Your task to perform on an android device: change notifications settings Image 0: 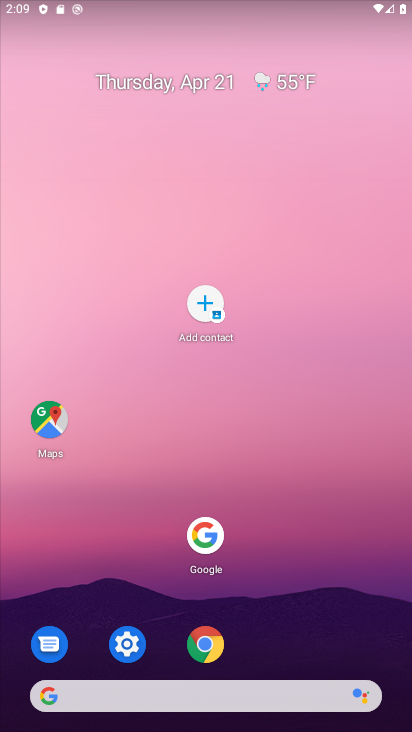
Step 0: drag from (277, 701) to (21, 3)
Your task to perform on an android device: change notifications settings Image 1: 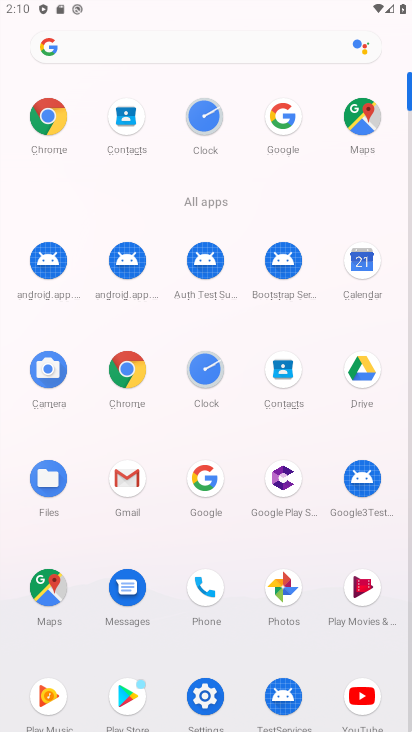
Step 1: drag from (194, 517) to (187, 234)
Your task to perform on an android device: change notifications settings Image 2: 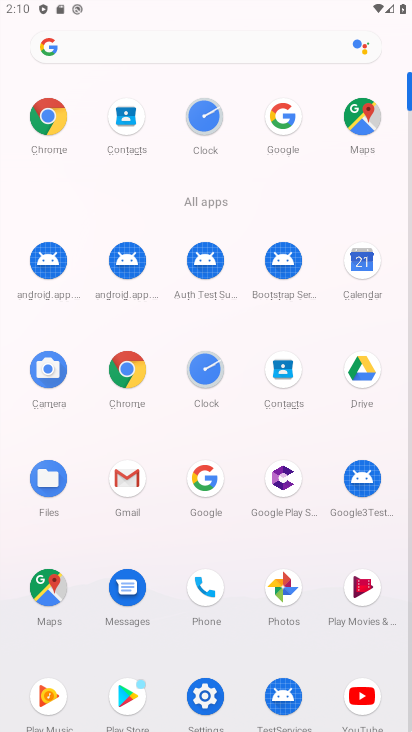
Step 2: drag from (233, 596) to (192, 132)
Your task to perform on an android device: change notifications settings Image 3: 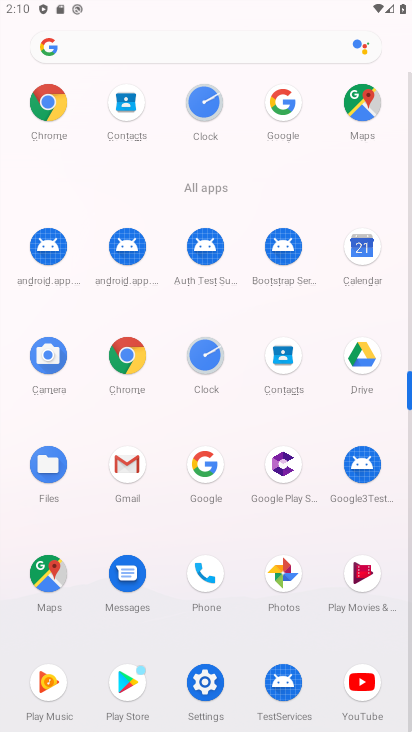
Step 3: drag from (225, 428) to (154, 105)
Your task to perform on an android device: change notifications settings Image 4: 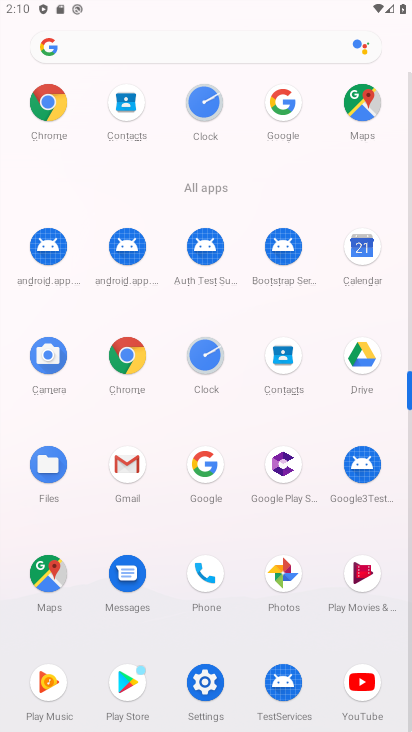
Step 4: click (201, 687)
Your task to perform on an android device: change notifications settings Image 5: 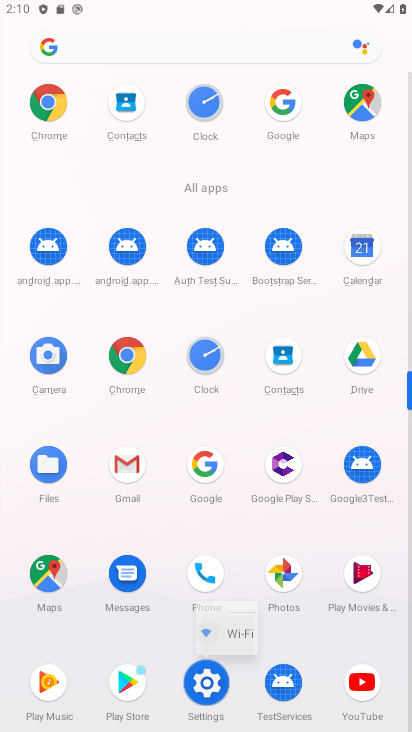
Step 5: click (201, 687)
Your task to perform on an android device: change notifications settings Image 6: 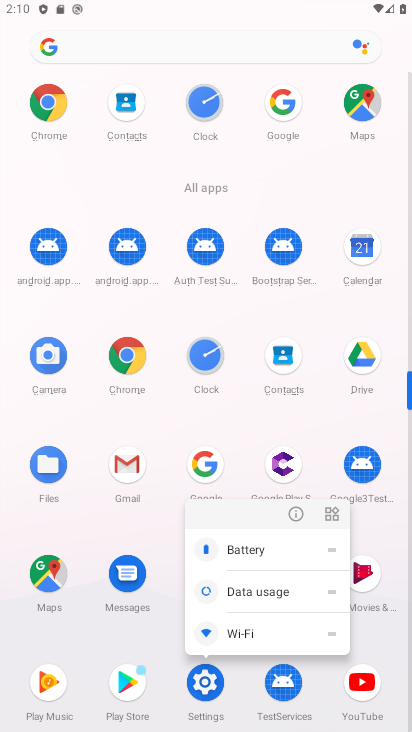
Step 6: click (207, 694)
Your task to perform on an android device: change notifications settings Image 7: 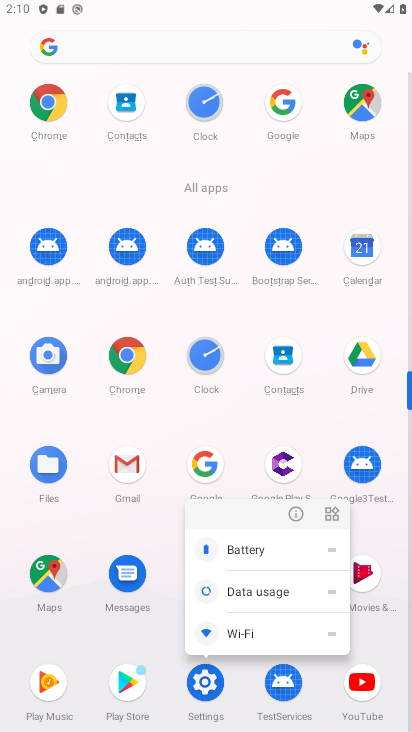
Step 7: click (200, 677)
Your task to perform on an android device: change notifications settings Image 8: 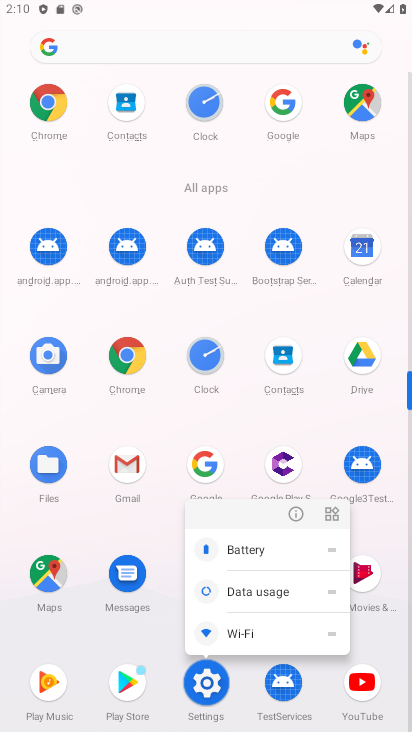
Step 8: click (199, 676)
Your task to perform on an android device: change notifications settings Image 9: 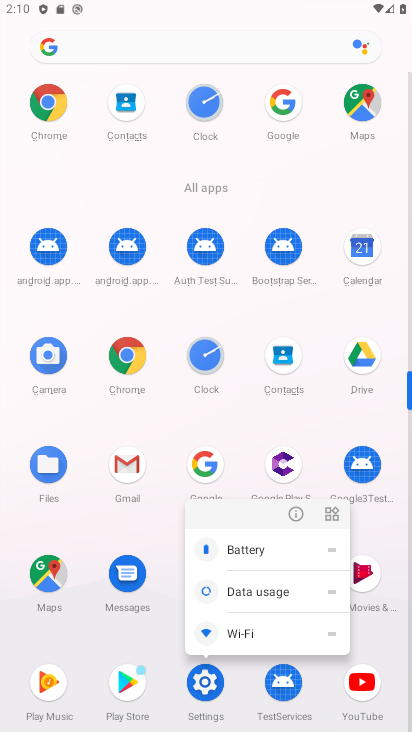
Step 9: drag from (199, 676) to (205, 455)
Your task to perform on an android device: change notifications settings Image 10: 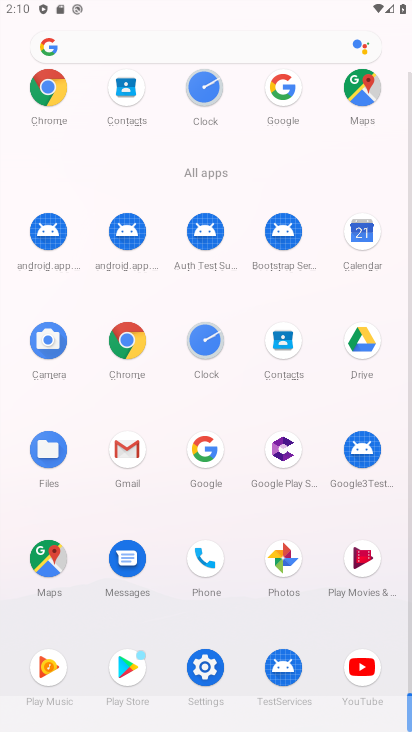
Step 10: click (210, 655)
Your task to perform on an android device: change notifications settings Image 11: 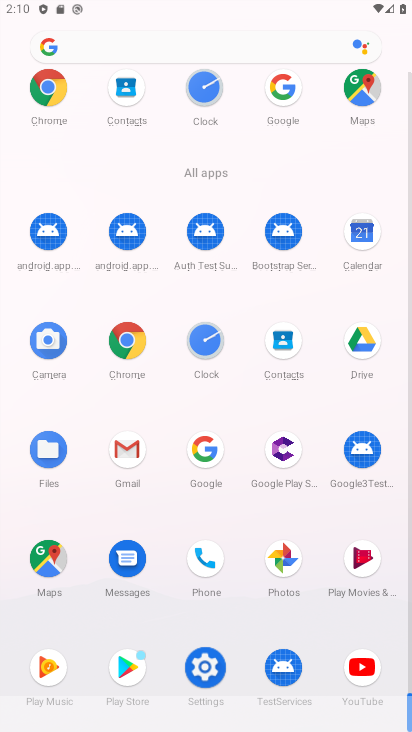
Step 11: click (210, 655)
Your task to perform on an android device: change notifications settings Image 12: 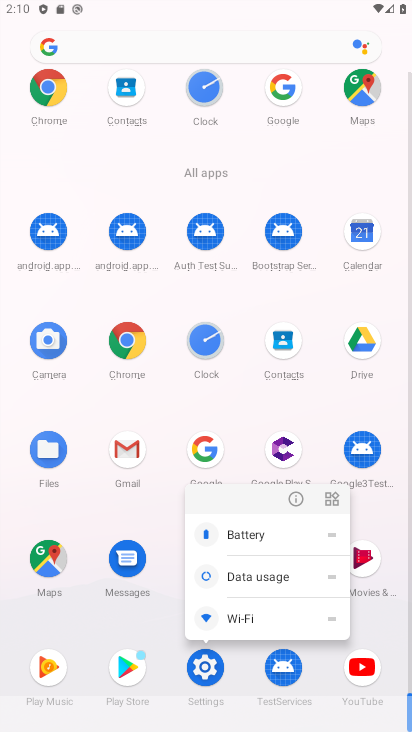
Step 12: click (194, 675)
Your task to perform on an android device: change notifications settings Image 13: 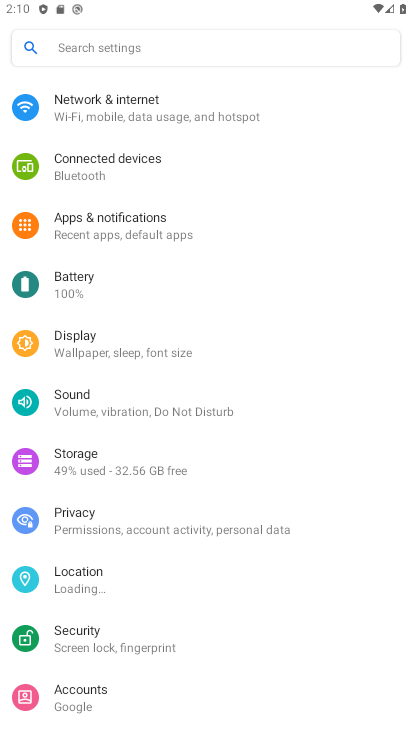
Step 13: click (210, 661)
Your task to perform on an android device: change notifications settings Image 14: 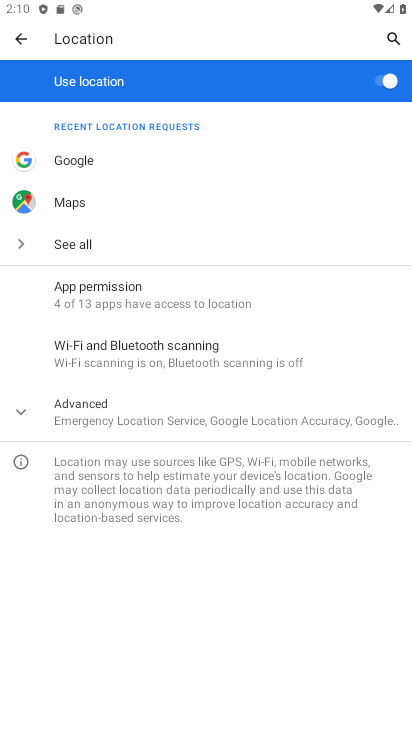
Step 14: click (13, 38)
Your task to perform on an android device: change notifications settings Image 15: 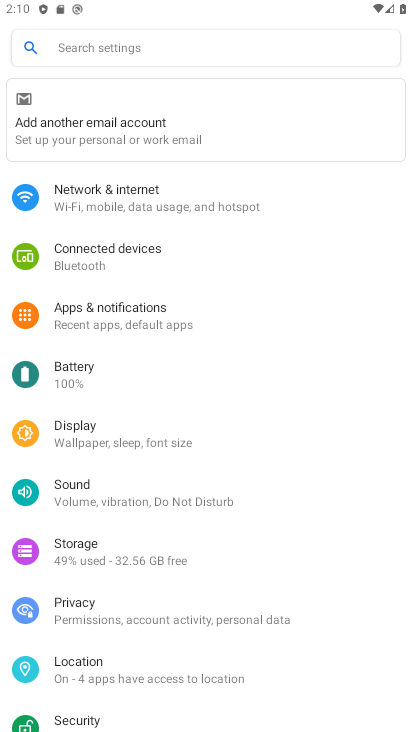
Step 15: click (119, 321)
Your task to perform on an android device: change notifications settings Image 16: 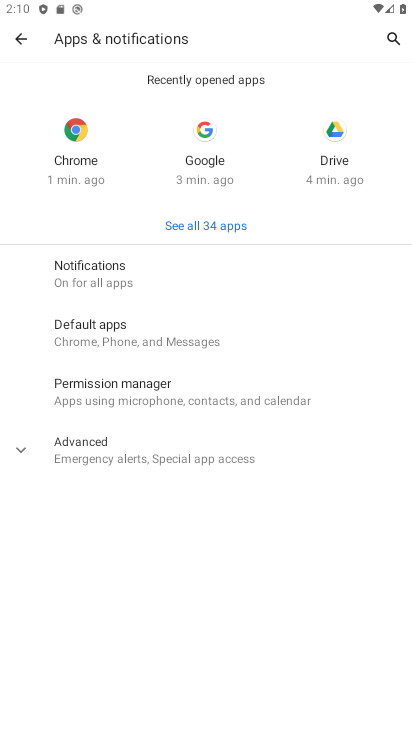
Step 16: click (98, 275)
Your task to perform on an android device: change notifications settings Image 17: 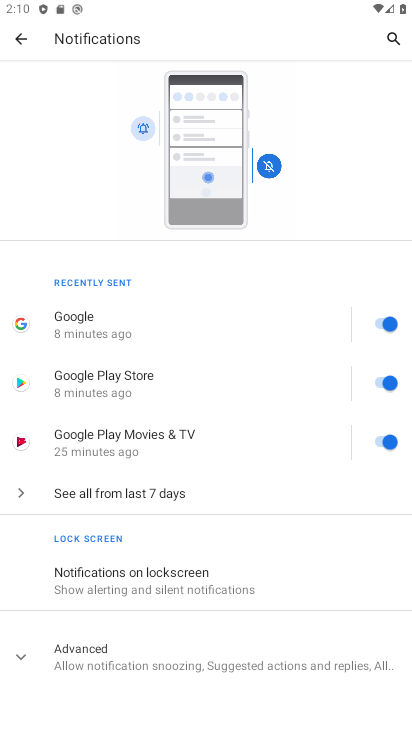
Step 17: drag from (195, 578) to (35, 107)
Your task to perform on an android device: change notifications settings Image 18: 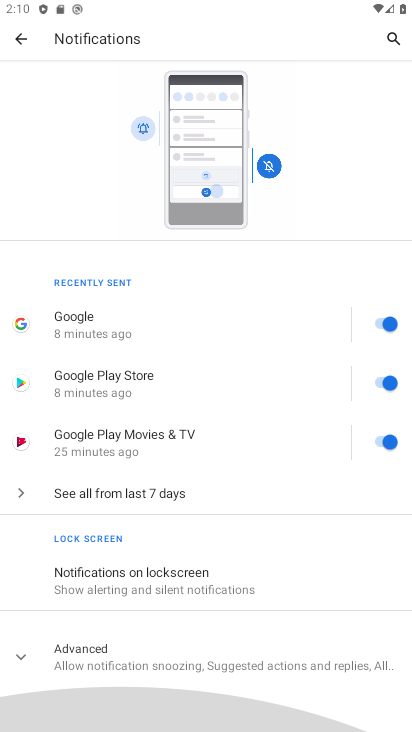
Step 18: drag from (165, 527) to (36, 224)
Your task to perform on an android device: change notifications settings Image 19: 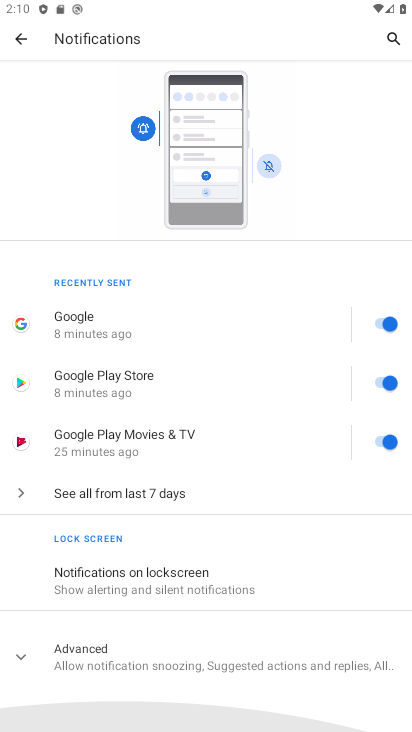
Step 19: drag from (177, 499) to (116, 278)
Your task to perform on an android device: change notifications settings Image 20: 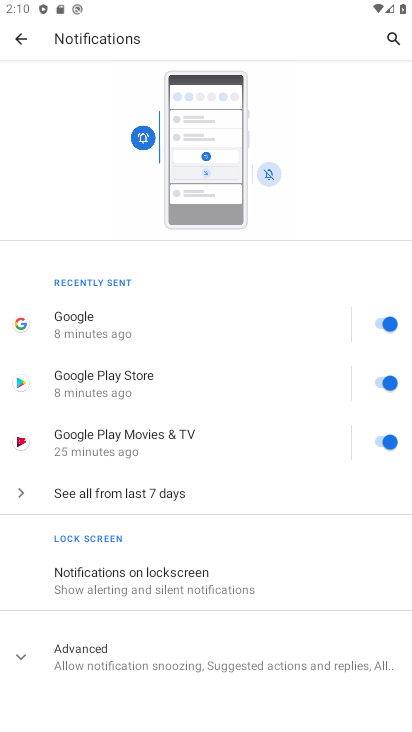
Step 20: drag from (148, 526) to (108, 378)
Your task to perform on an android device: change notifications settings Image 21: 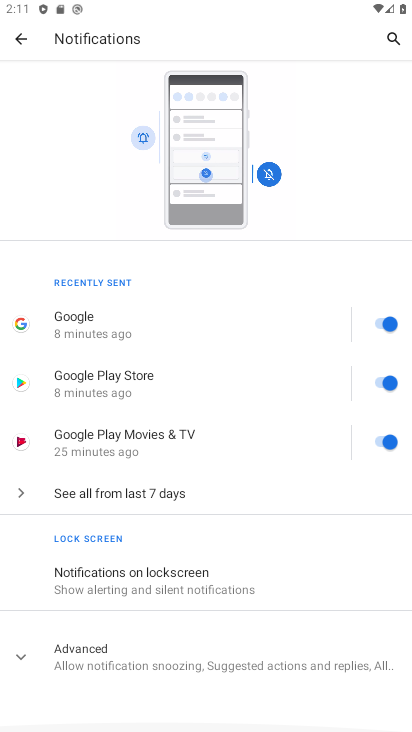
Step 21: click (89, 662)
Your task to perform on an android device: change notifications settings Image 22: 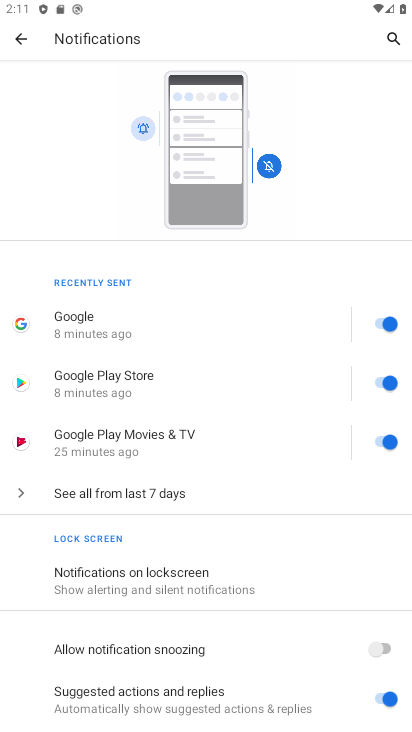
Step 22: drag from (267, 591) to (86, 226)
Your task to perform on an android device: change notifications settings Image 23: 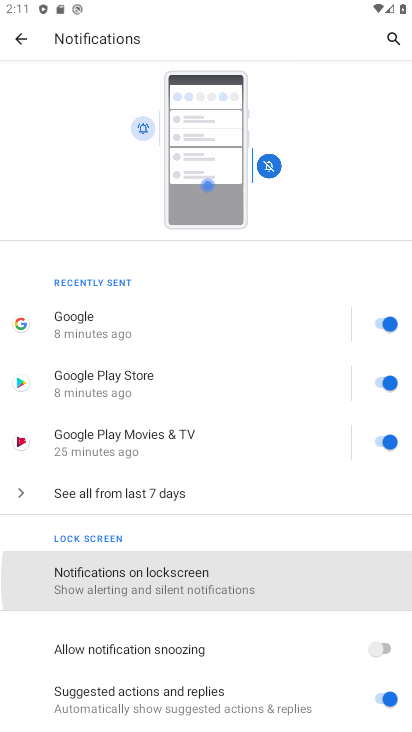
Step 23: drag from (196, 582) to (213, 281)
Your task to perform on an android device: change notifications settings Image 24: 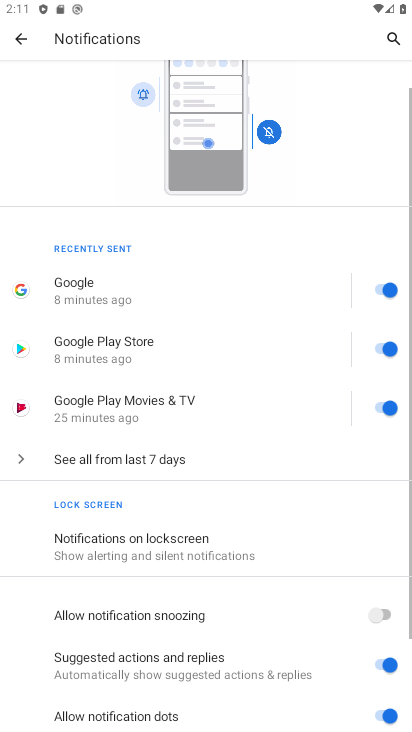
Step 24: drag from (228, 641) to (161, 282)
Your task to perform on an android device: change notifications settings Image 25: 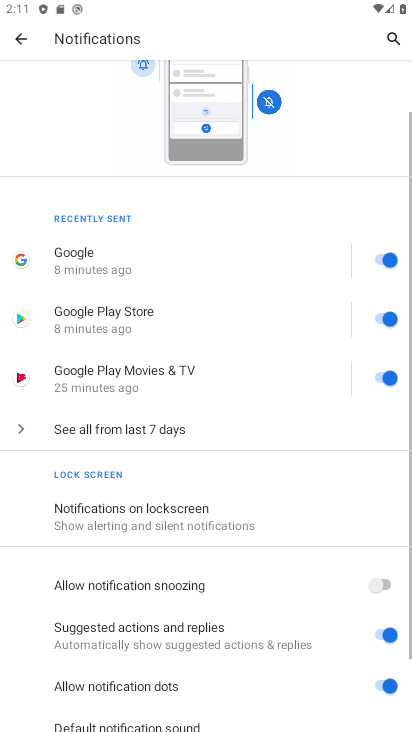
Step 25: drag from (245, 657) to (194, 201)
Your task to perform on an android device: change notifications settings Image 26: 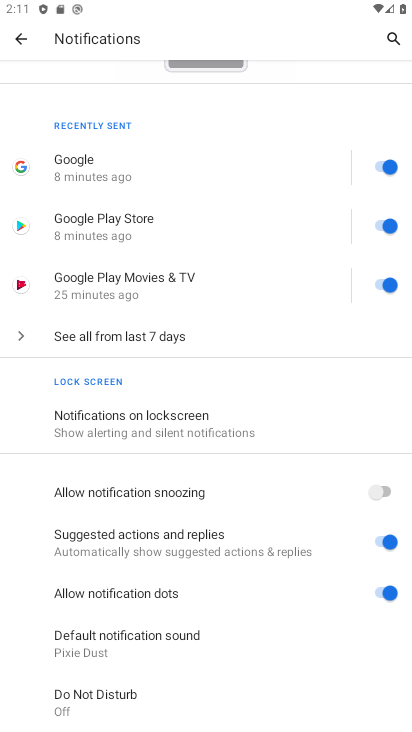
Step 26: click (384, 593)
Your task to perform on an android device: change notifications settings Image 27: 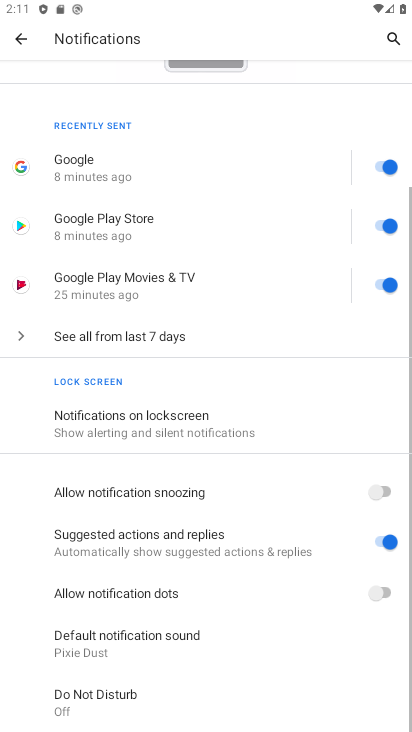
Step 27: task complete